Your task to perform on an android device: add a contact Image 0: 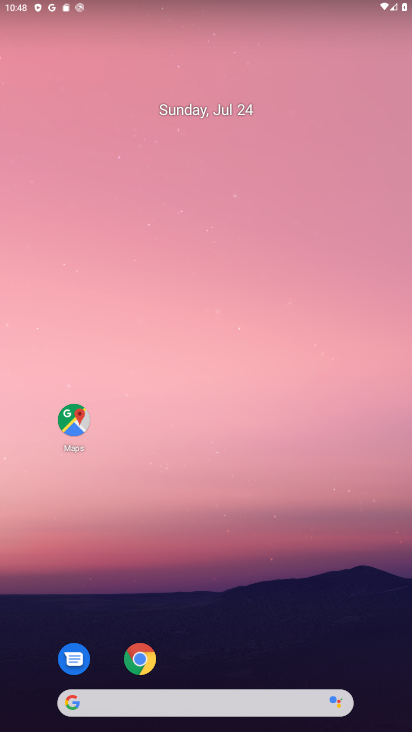
Step 0: drag from (250, 659) to (255, 312)
Your task to perform on an android device: add a contact Image 1: 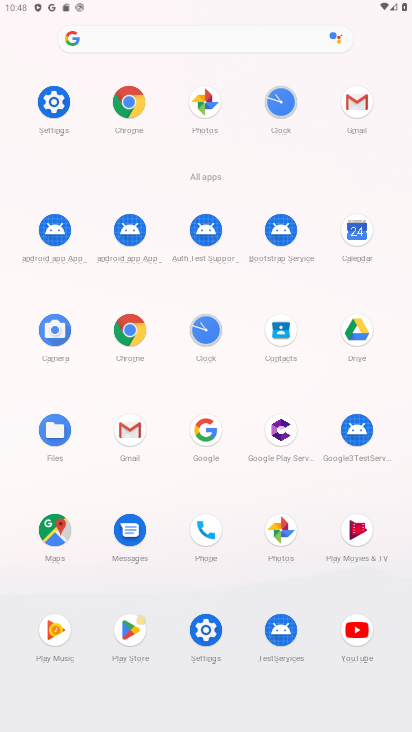
Step 1: click (205, 517)
Your task to perform on an android device: add a contact Image 2: 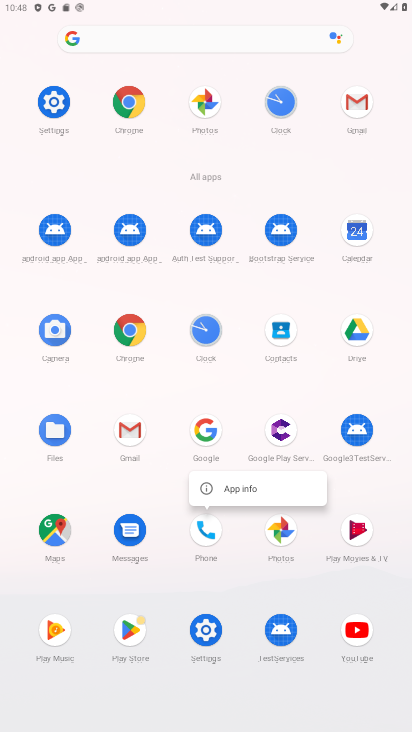
Step 2: click (205, 517)
Your task to perform on an android device: add a contact Image 3: 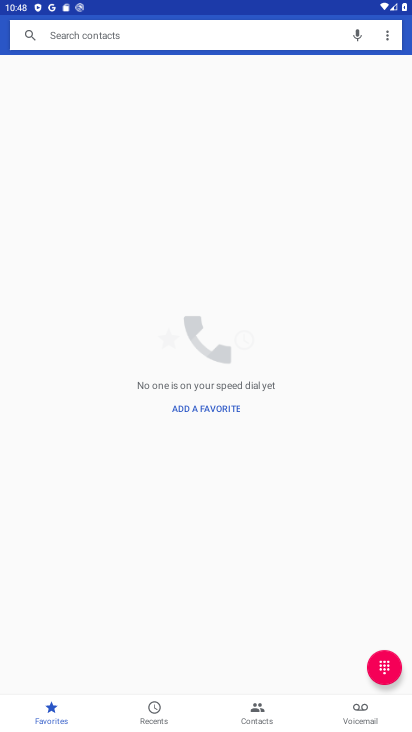
Step 3: click (205, 400)
Your task to perform on an android device: add a contact Image 4: 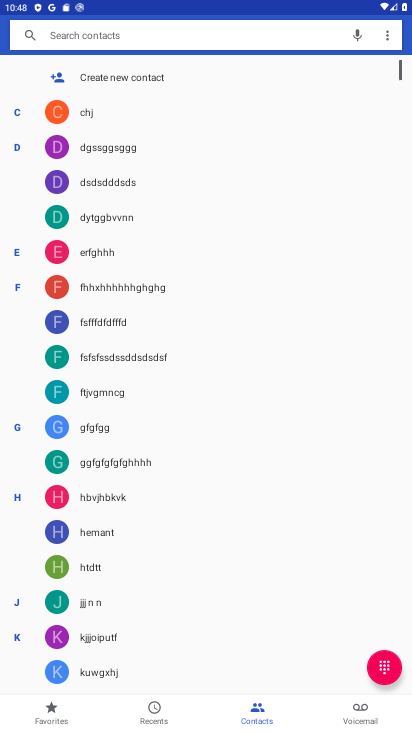
Step 4: click (79, 72)
Your task to perform on an android device: add a contact Image 5: 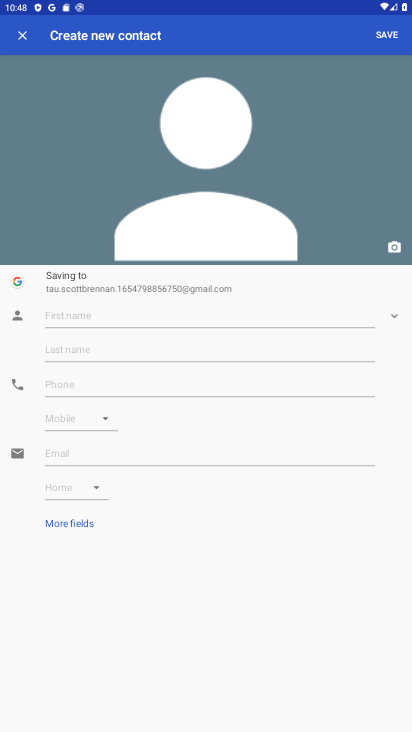
Step 5: click (112, 307)
Your task to perform on an android device: add a contact Image 6: 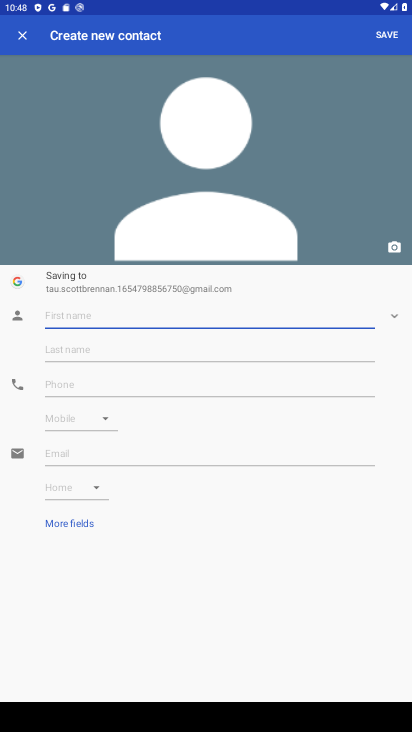
Step 6: type "uhuhuhuhuhuhuhuhu "
Your task to perform on an android device: add a contact Image 7: 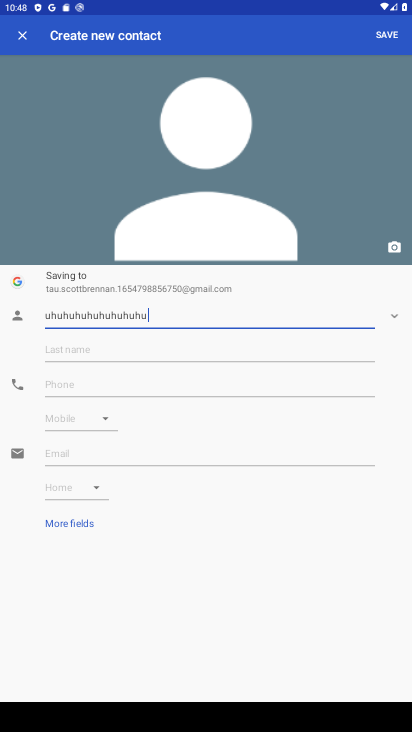
Step 7: click (62, 375)
Your task to perform on an android device: add a contact Image 8: 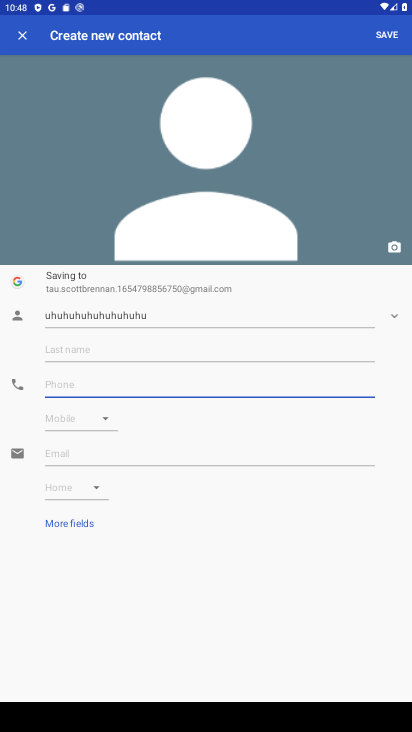
Step 8: type "99899899898989898989898 "
Your task to perform on an android device: add a contact Image 9: 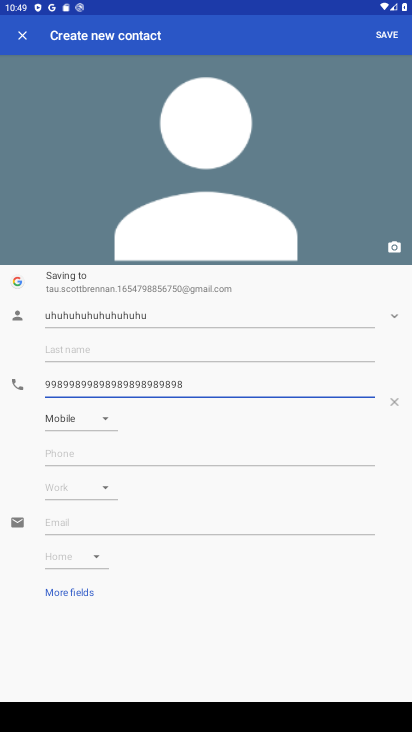
Step 9: click (381, 31)
Your task to perform on an android device: add a contact Image 10: 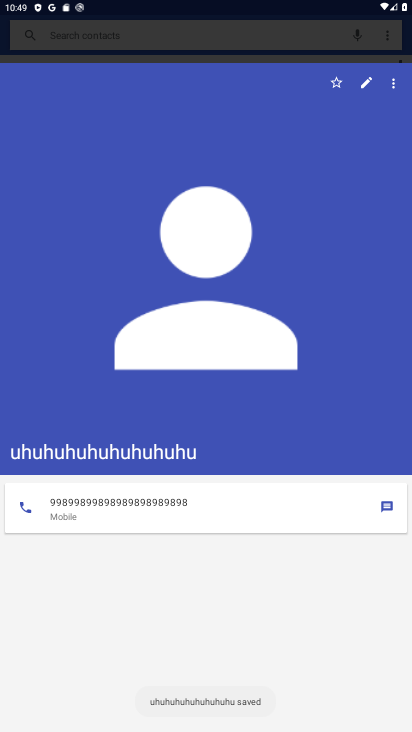
Step 10: task complete